Your task to perform on an android device: Open Google Chrome Image 0: 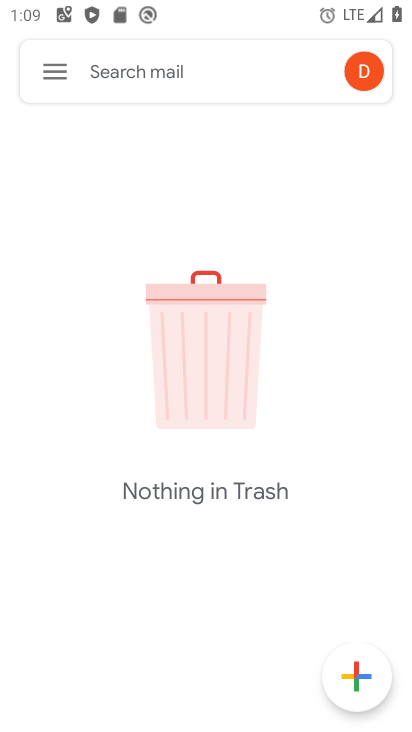
Step 0: press back button
Your task to perform on an android device: Open Google Chrome Image 1: 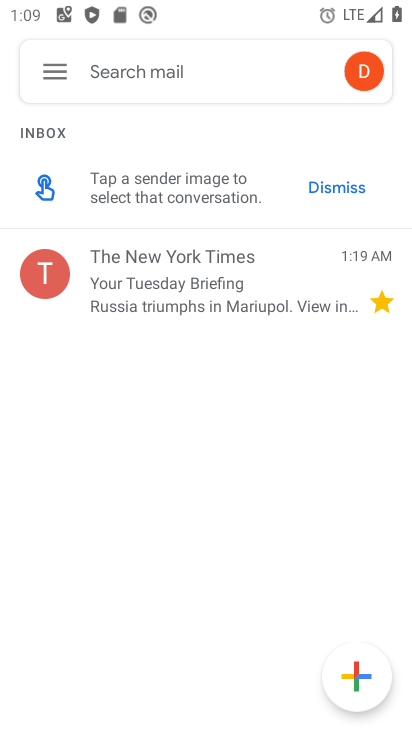
Step 1: press home button
Your task to perform on an android device: Open Google Chrome Image 2: 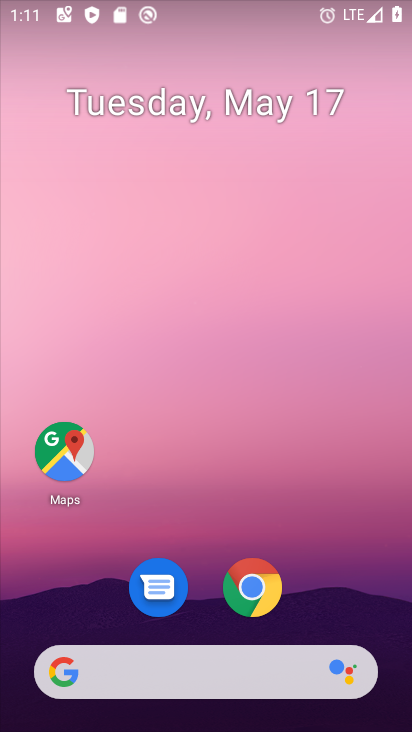
Step 2: drag from (383, 608) to (304, 8)
Your task to perform on an android device: Open Google Chrome Image 3: 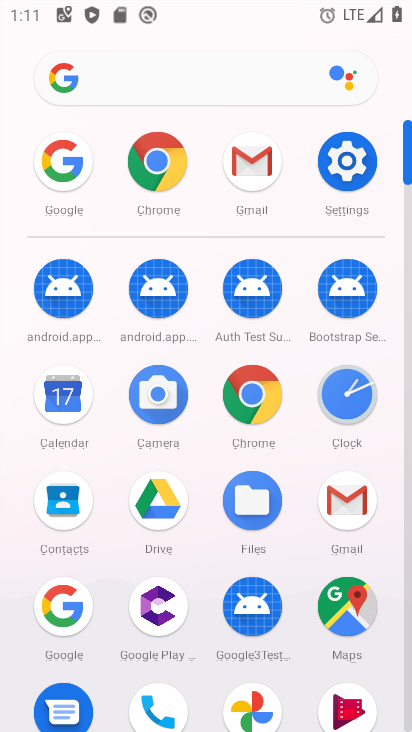
Step 3: click (269, 402)
Your task to perform on an android device: Open Google Chrome Image 4: 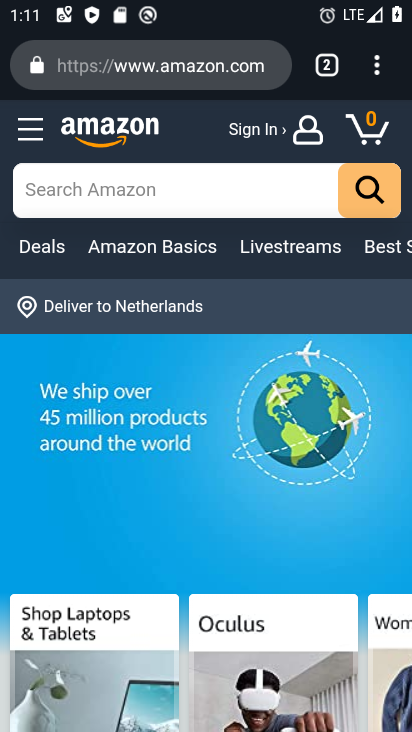
Step 4: task complete